Your task to perform on an android device: check storage Image 0: 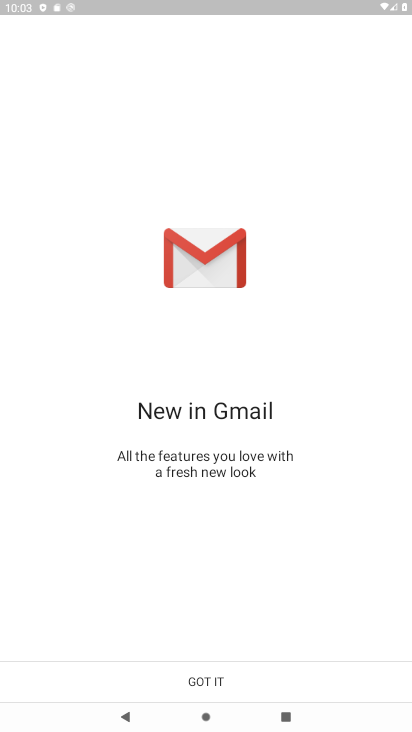
Step 0: click (186, 680)
Your task to perform on an android device: check storage Image 1: 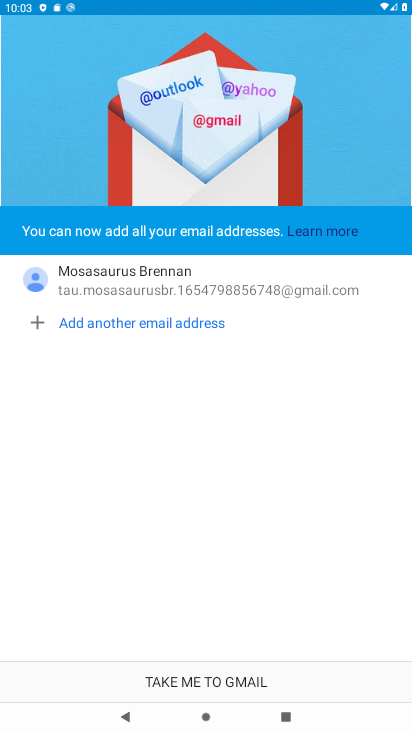
Step 1: press home button
Your task to perform on an android device: check storage Image 2: 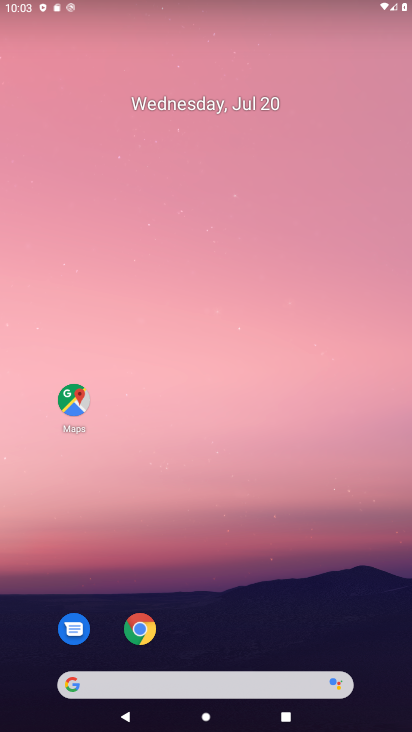
Step 2: drag from (240, 607) to (320, 10)
Your task to perform on an android device: check storage Image 3: 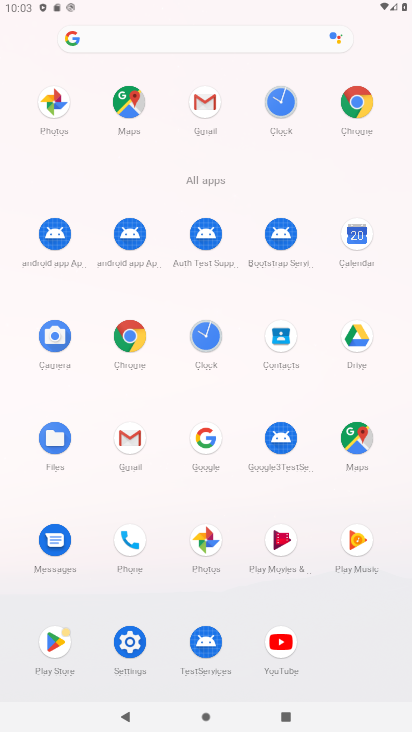
Step 3: click (137, 630)
Your task to perform on an android device: check storage Image 4: 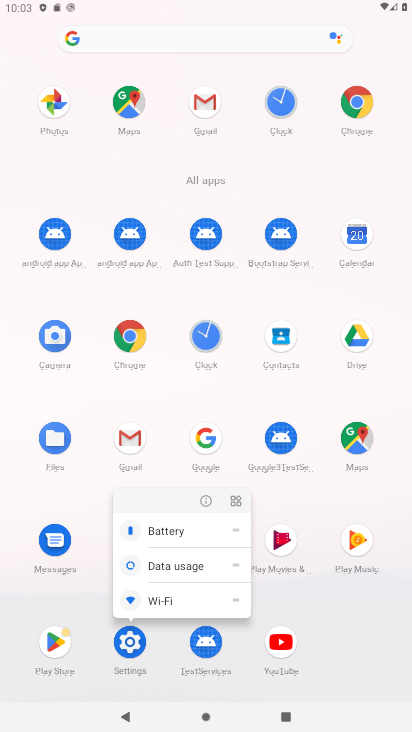
Step 4: click (202, 496)
Your task to perform on an android device: check storage Image 5: 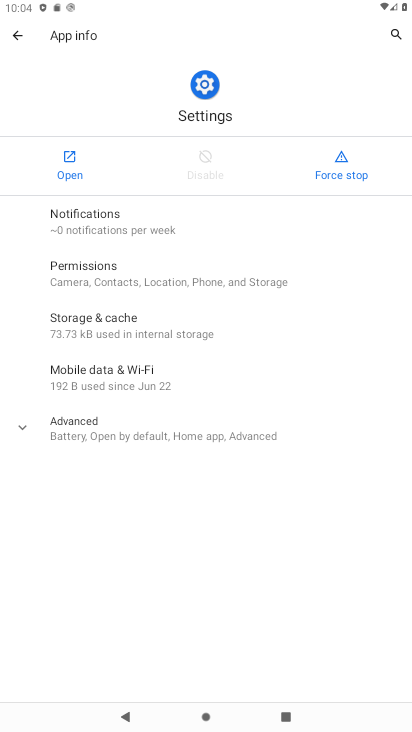
Step 5: click (65, 167)
Your task to perform on an android device: check storage Image 6: 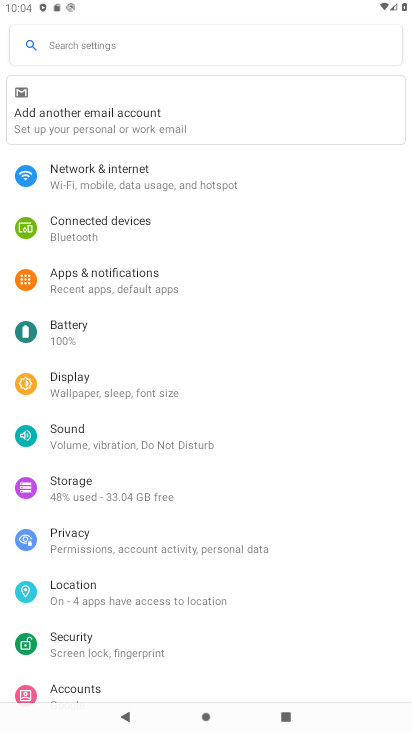
Step 6: click (99, 495)
Your task to perform on an android device: check storage Image 7: 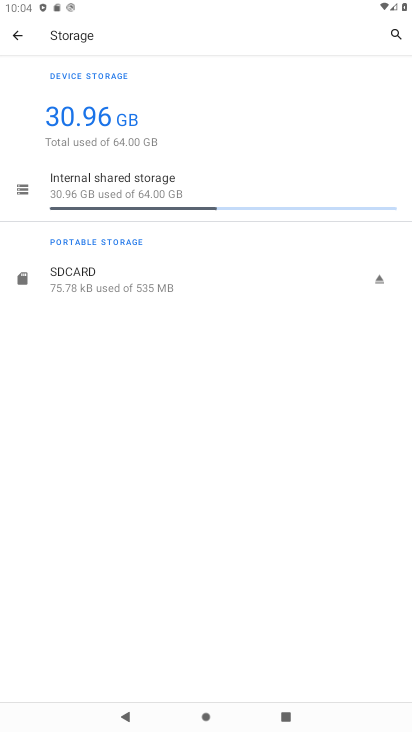
Step 7: task complete